Your task to perform on an android device: Open Google Maps Image 0: 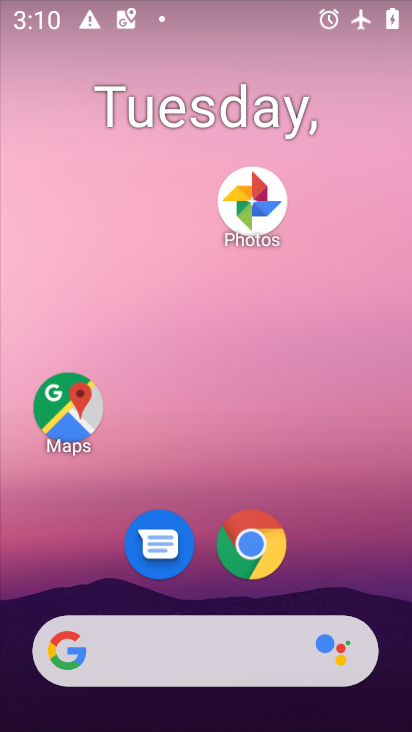
Step 0: click (58, 414)
Your task to perform on an android device: Open Google Maps Image 1: 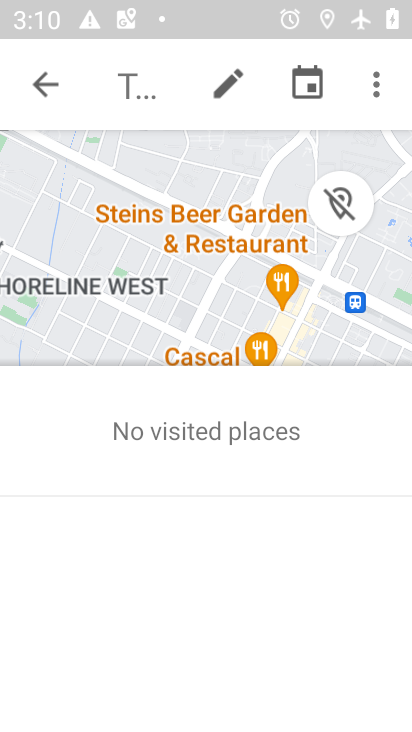
Step 1: press home button
Your task to perform on an android device: Open Google Maps Image 2: 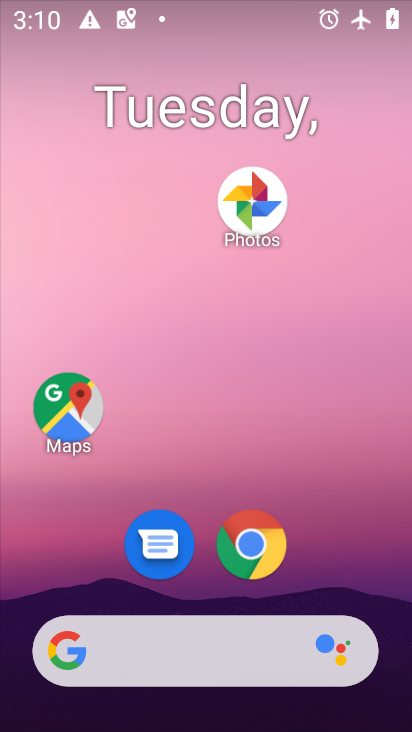
Step 2: click (69, 412)
Your task to perform on an android device: Open Google Maps Image 3: 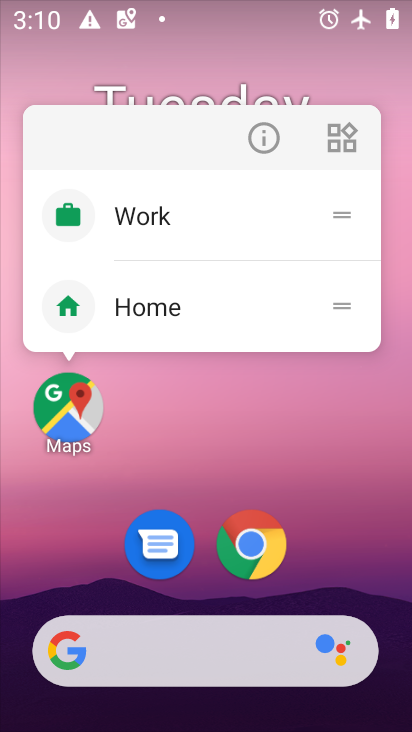
Step 3: click (72, 417)
Your task to perform on an android device: Open Google Maps Image 4: 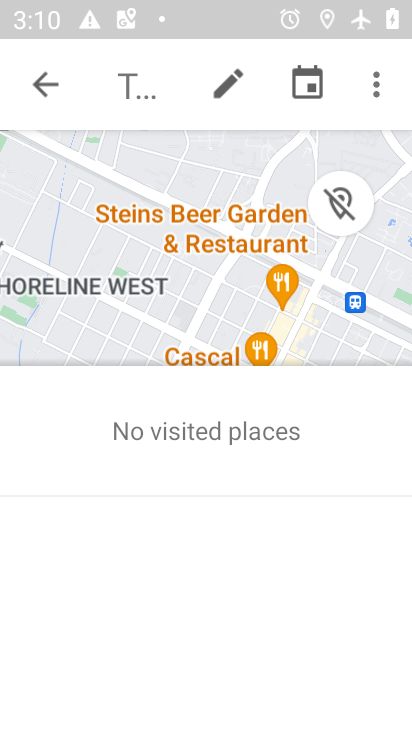
Step 4: task complete